Your task to perform on an android device: change your default location settings in chrome Image 0: 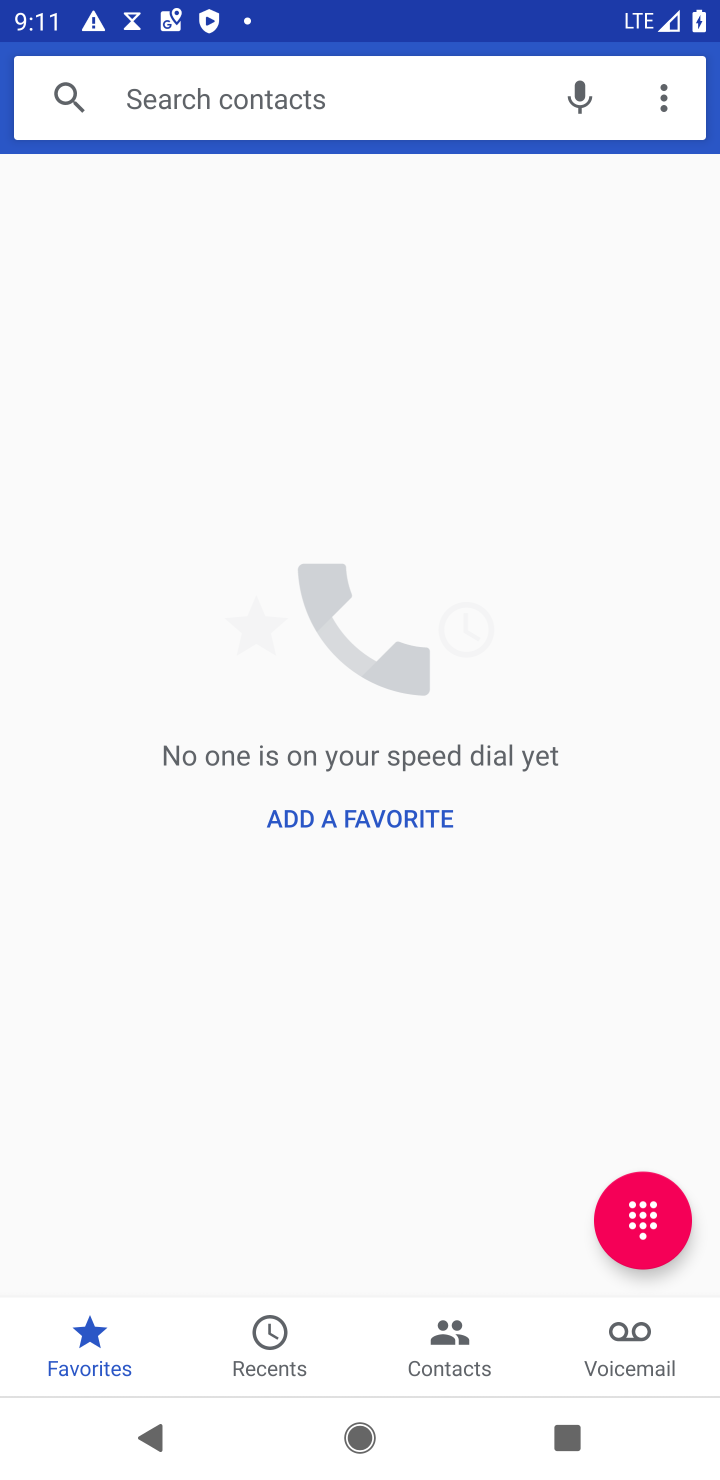
Step 0: press back button
Your task to perform on an android device: change your default location settings in chrome Image 1: 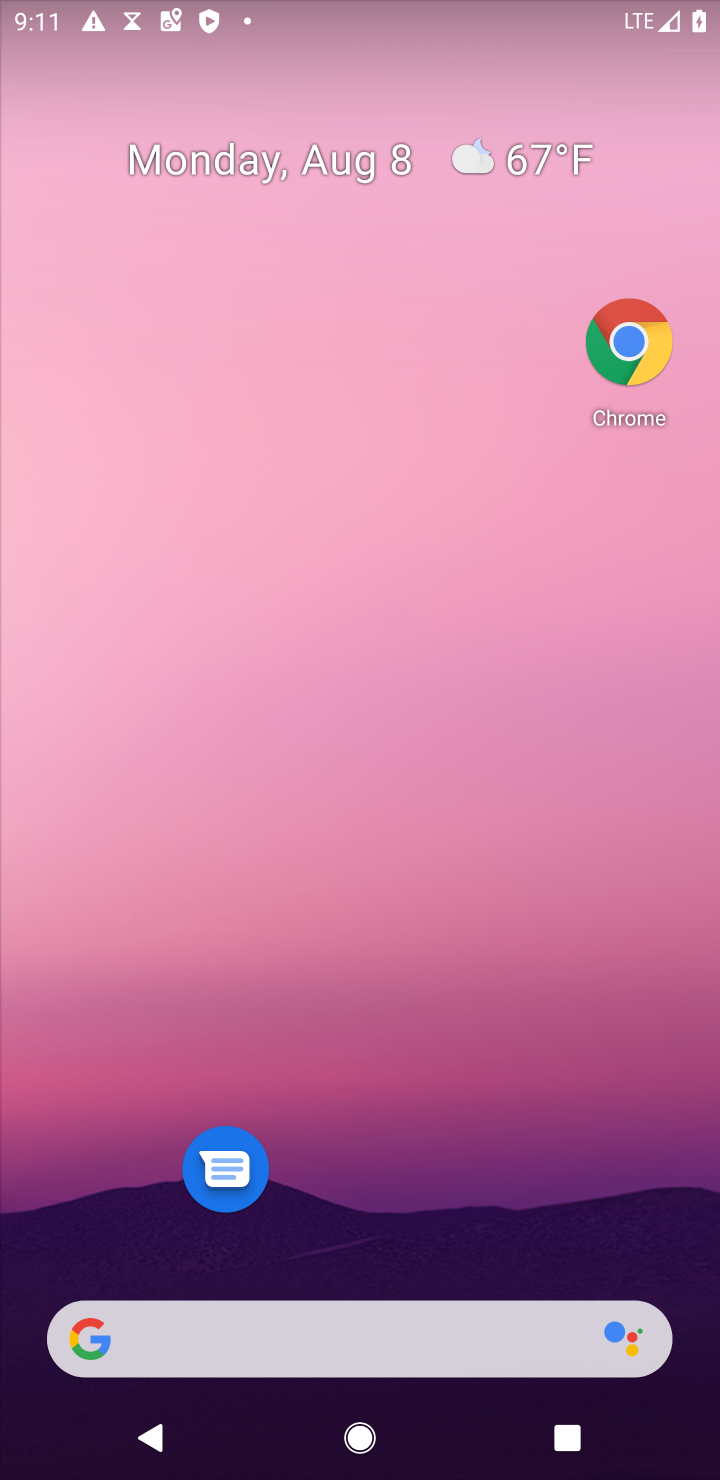
Step 1: click (627, 356)
Your task to perform on an android device: change your default location settings in chrome Image 2: 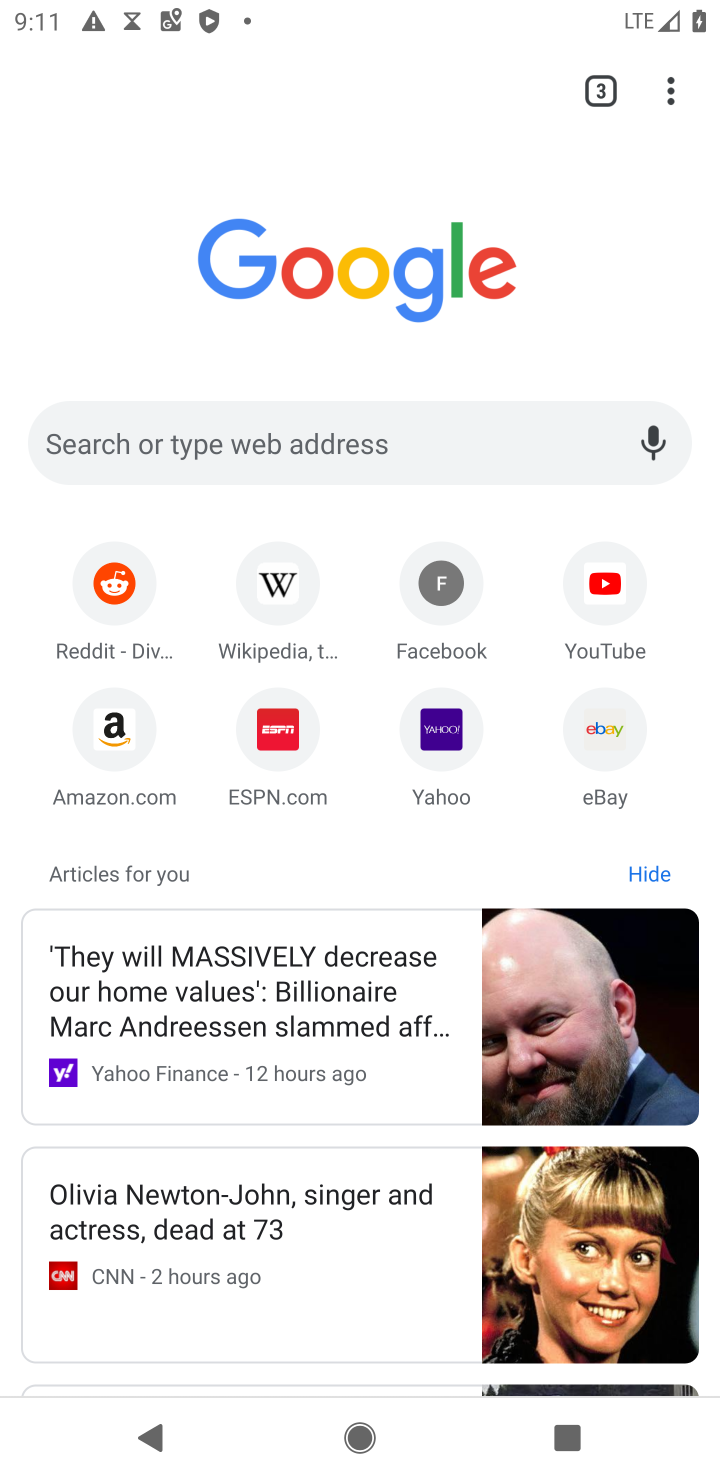
Step 2: drag from (679, 86) to (413, 765)
Your task to perform on an android device: change your default location settings in chrome Image 3: 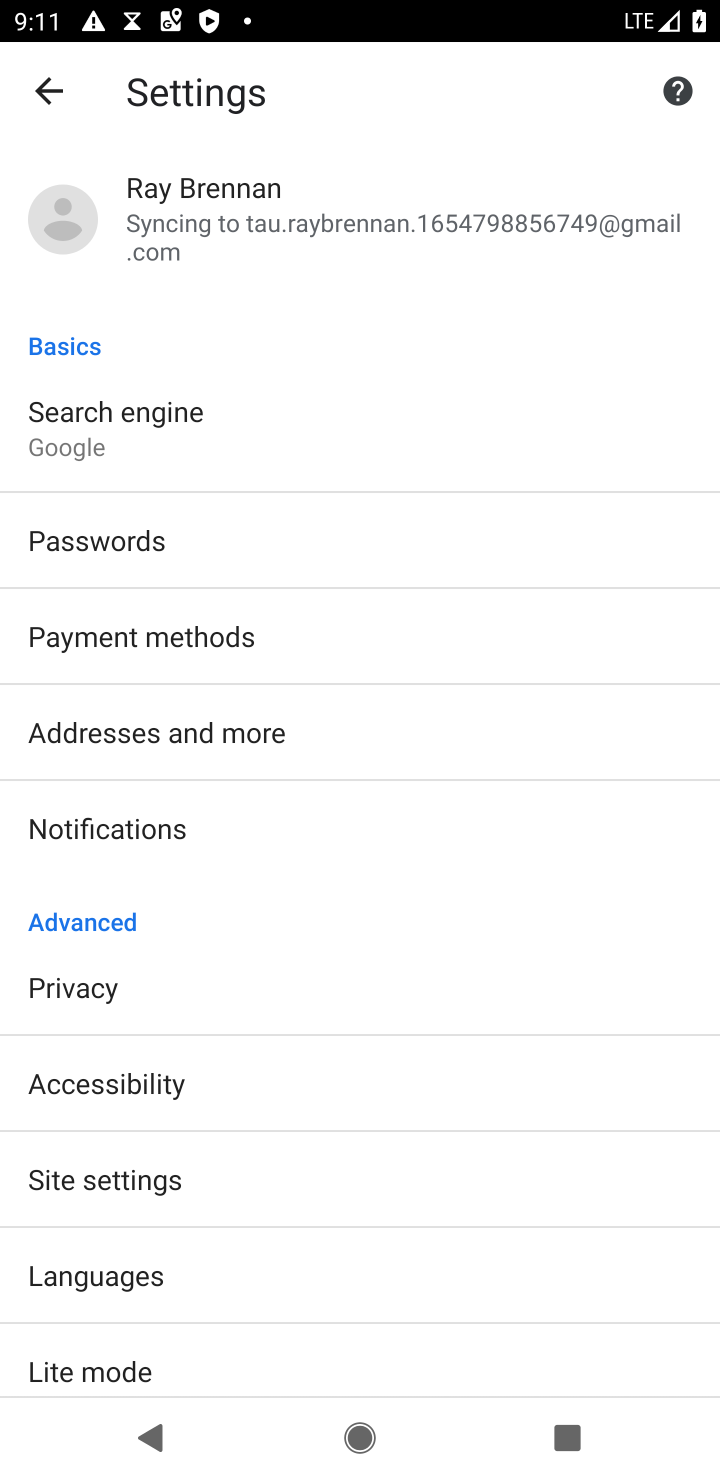
Step 3: drag from (156, 1327) to (277, 254)
Your task to perform on an android device: change your default location settings in chrome Image 4: 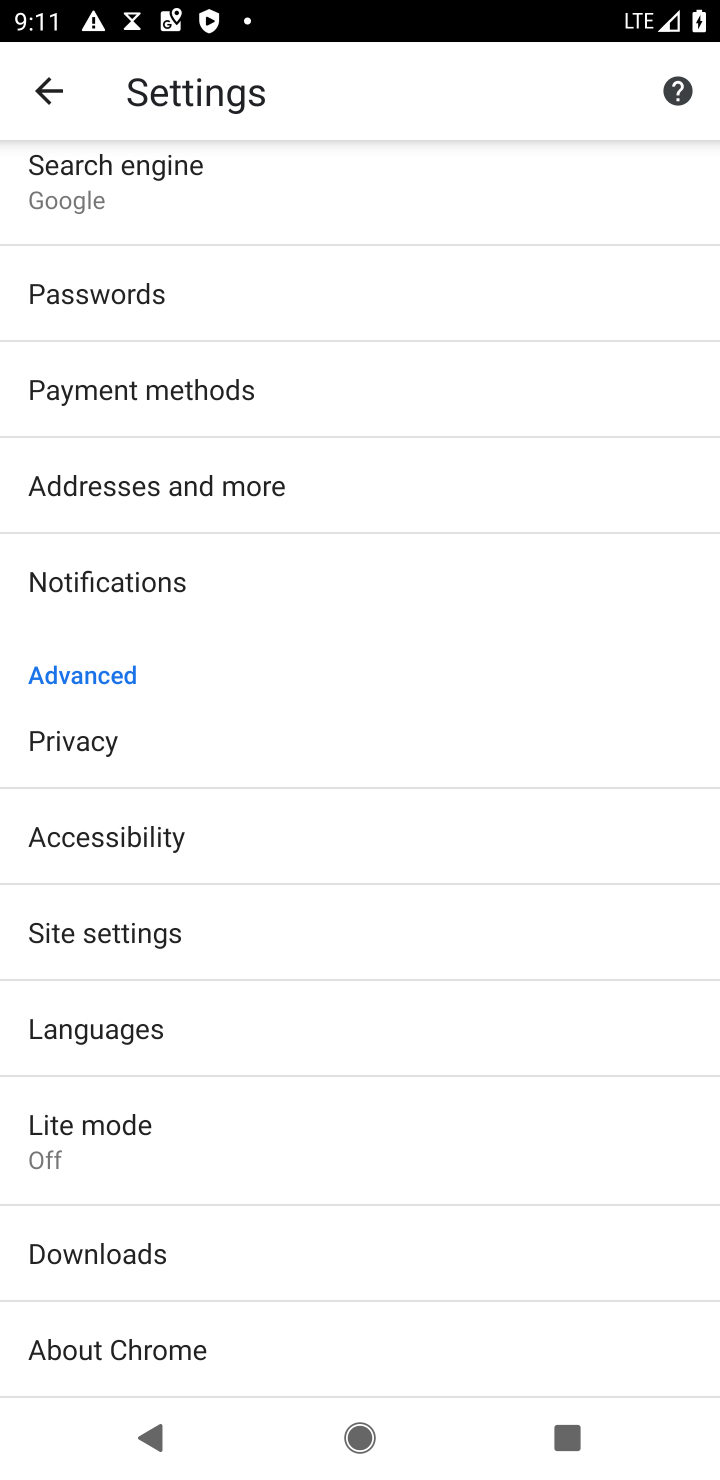
Step 4: click (78, 946)
Your task to perform on an android device: change your default location settings in chrome Image 5: 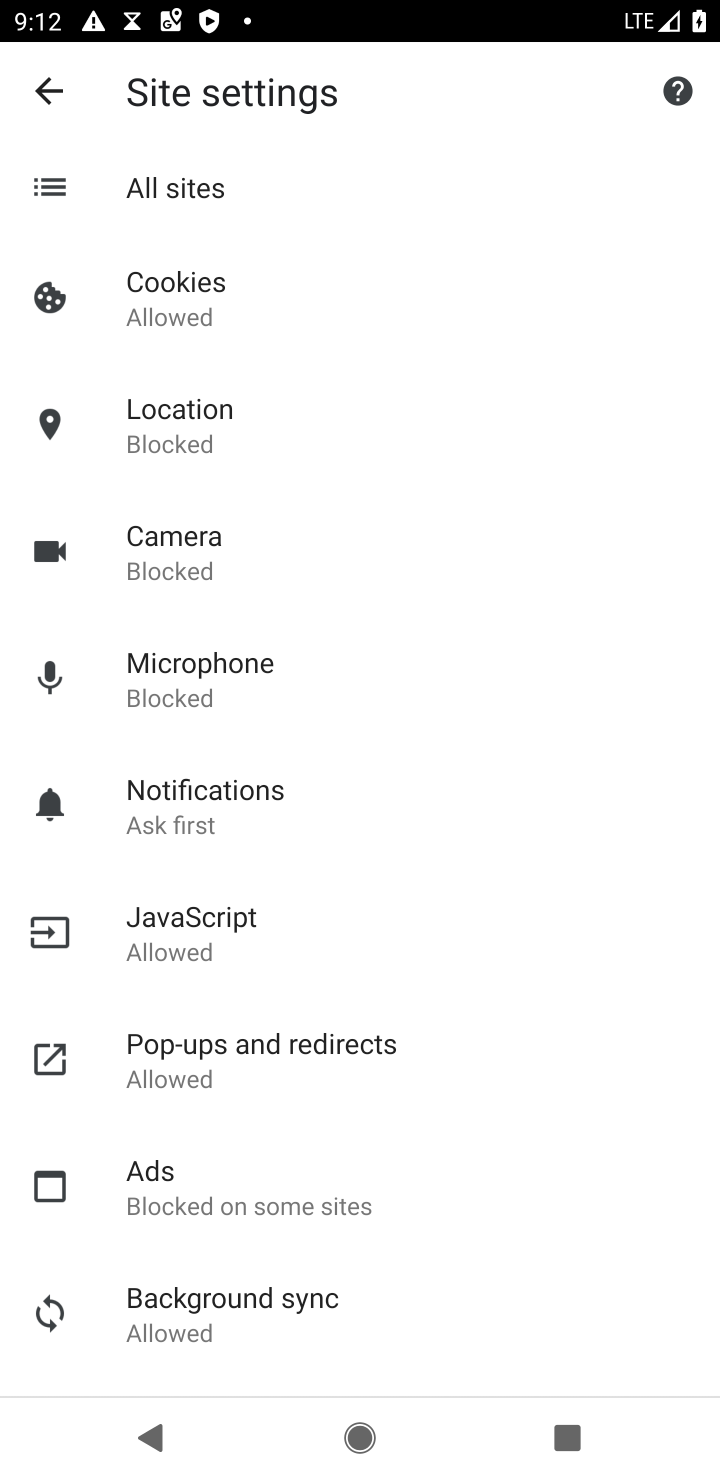
Step 5: click (201, 414)
Your task to perform on an android device: change your default location settings in chrome Image 6: 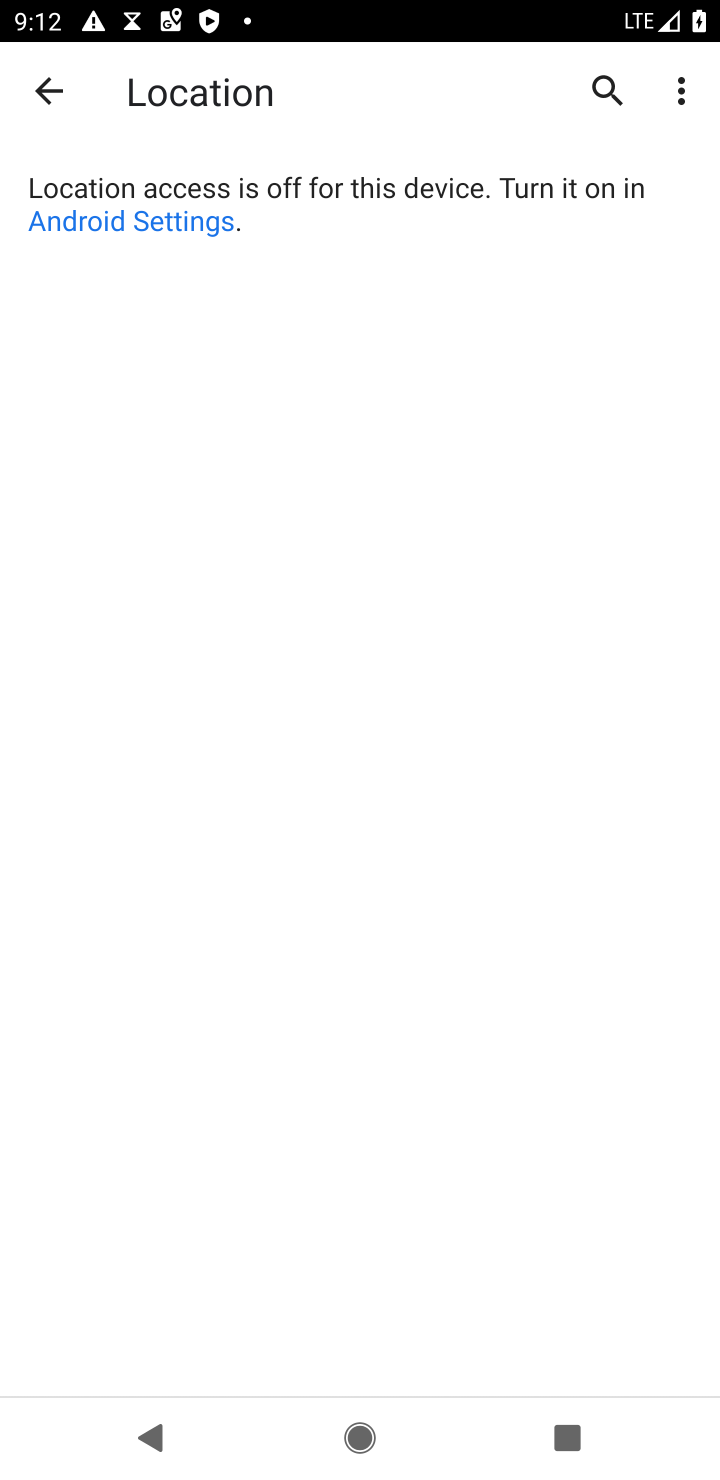
Step 6: task complete